Your task to perform on an android device: open a bookmark in the chrome app Image 0: 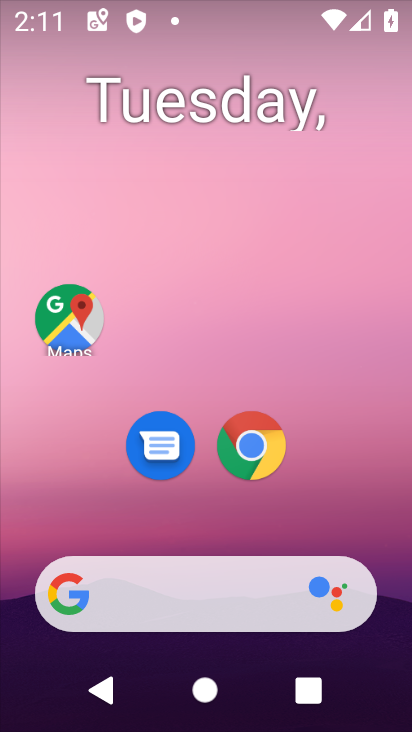
Step 0: click (245, 429)
Your task to perform on an android device: open a bookmark in the chrome app Image 1: 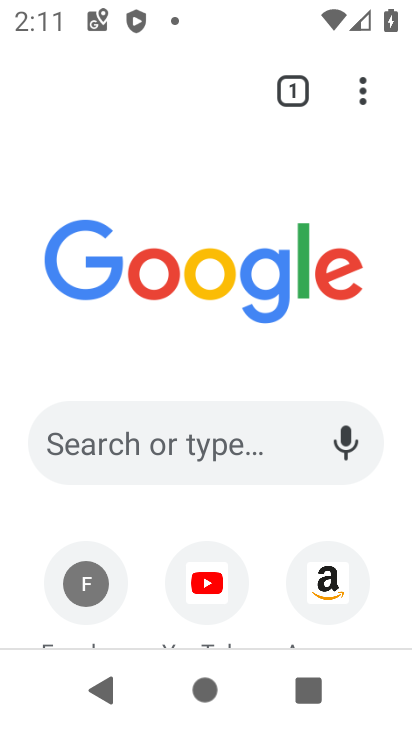
Step 1: click (342, 80)
Your task to perform on an android device: open a bookmark in the chrome app Image 2: 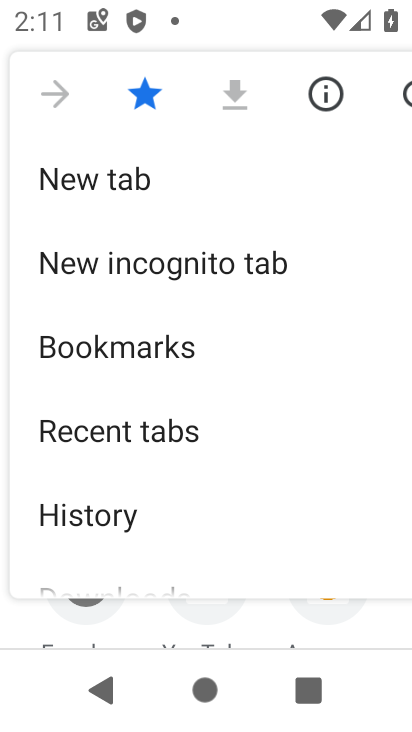
Step 2: click (215, 373)
Your task to perform on an android device: open a bookmark in the chrome app Image 3: 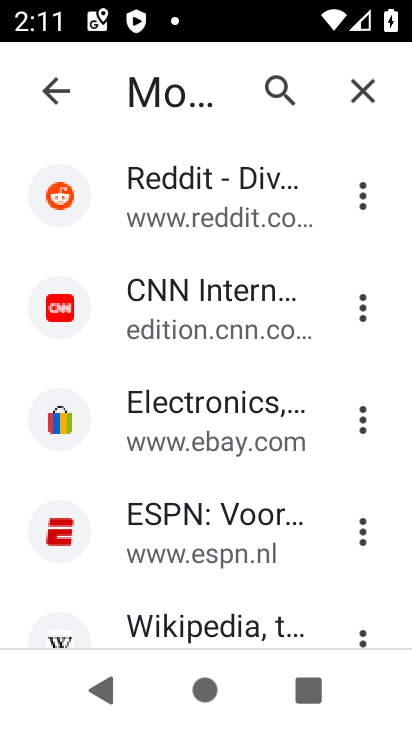
Step 3: click (156, 550)
Your task to perform on an android device: open a bookmark in the chrome app Image 4: 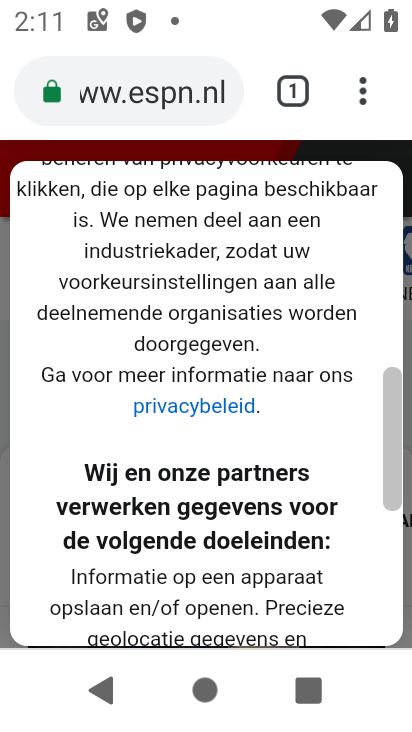
Step 4: task complete